Your task to perform on an android device: turn off location history Image 0: 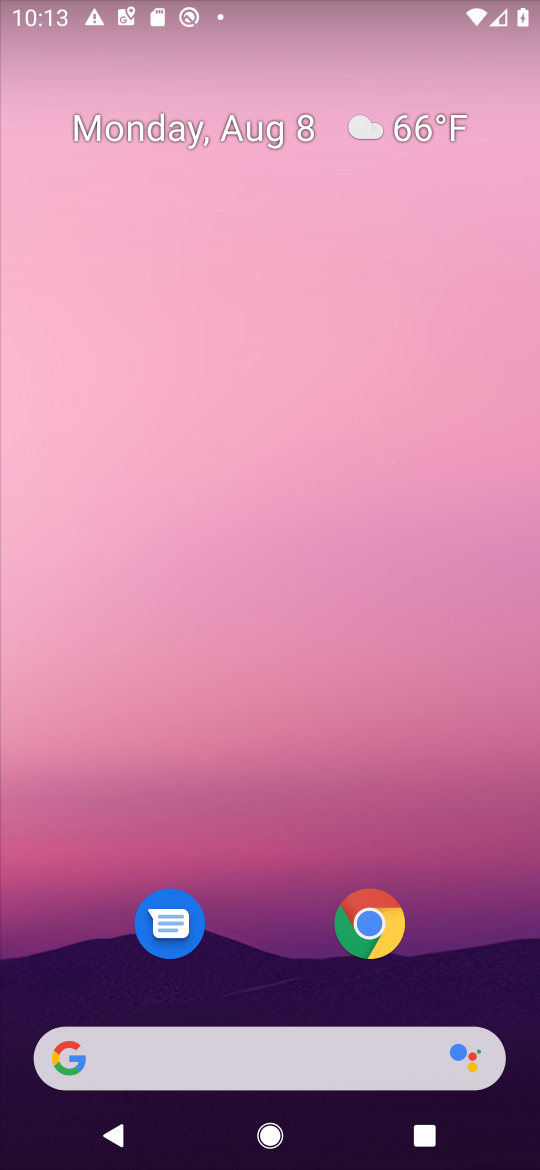
Step 0: drag from (35, 1114) to (200, 309)
Your task to perform on an android device: turn off location history Image 1: 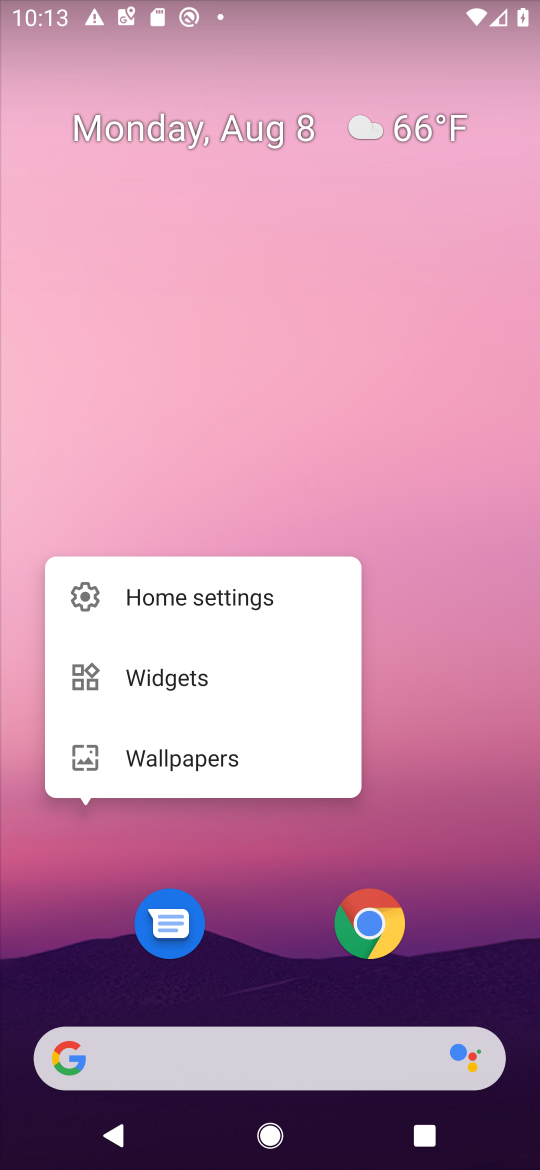
Step 1: task complete